Your task to perform on an android device: Do I have any events tomorrow? Image 0: 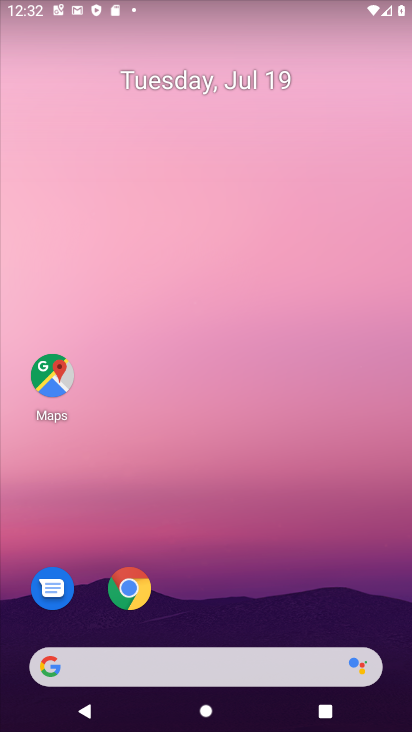
Step 0: drag from (349, 614) to (323, 52)
Your task to perform on an android device: Do I have any events tomorrow? Image 1: 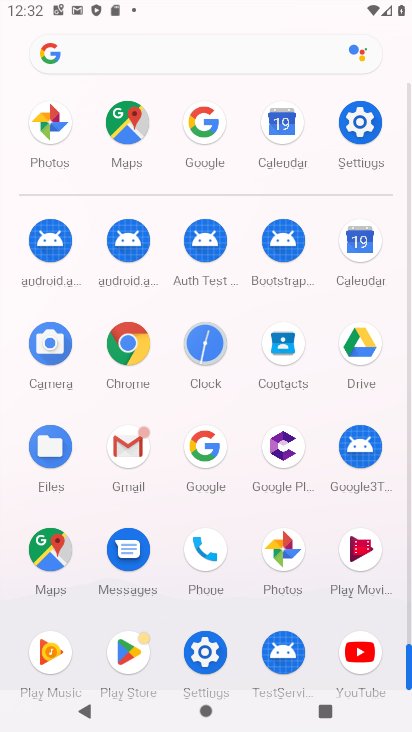
Step 1: click (362, 267)
Your task to perform on an android device: Do I have any events tomorrow? Image 2: 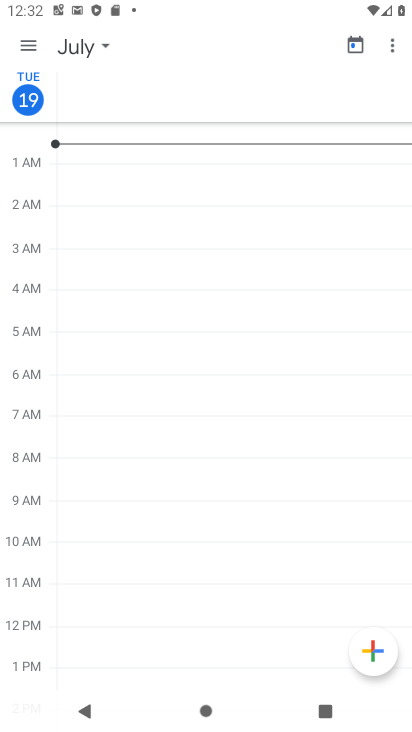
Step 2: task complete